Your task to perform on an android device: turn on wifi Image 0: 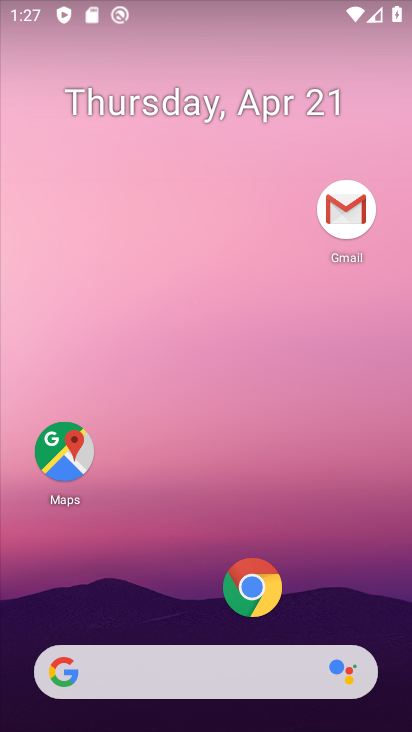
Step 0: drag from (289, 617) to (251, 69)
Your task to perform on an android device: turn on wifi Image 1: 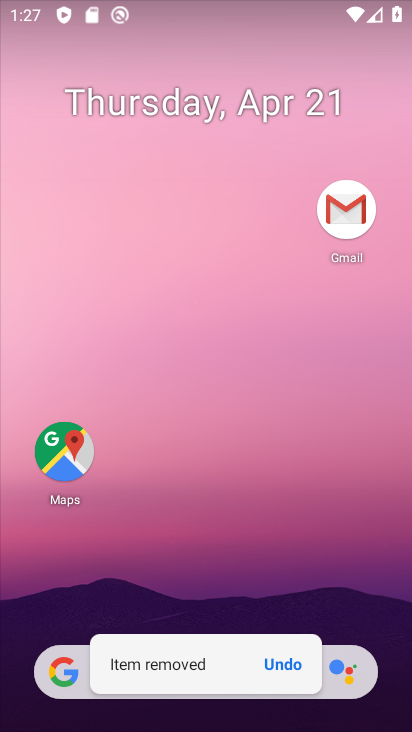
Step 1: click (242, 545)
Your task to perform on an android device: turn on wifi Image 2: 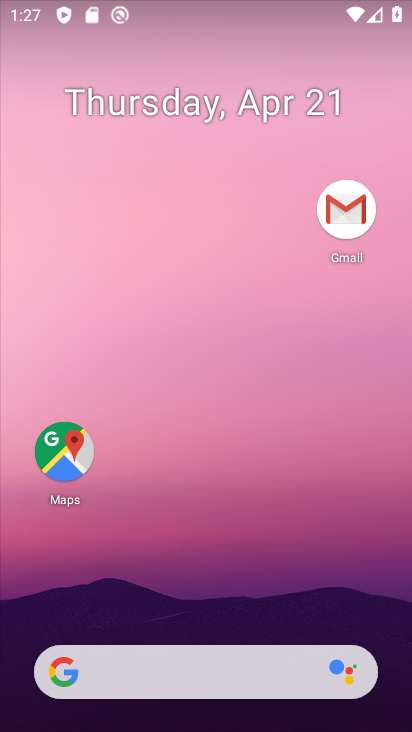
Step 2: drag from (292, 614) to (272, 74)
Your task to perform on an android device: turn on wifi Image 3: 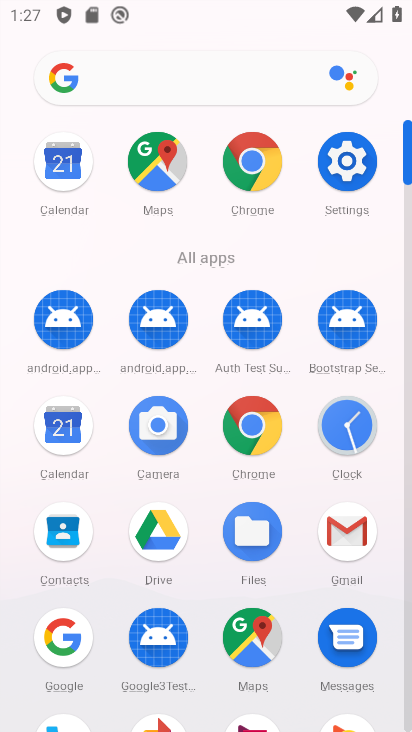
Step 3: click (344, 185)
Your task to perform on an android device: turn on wifi Image 4: 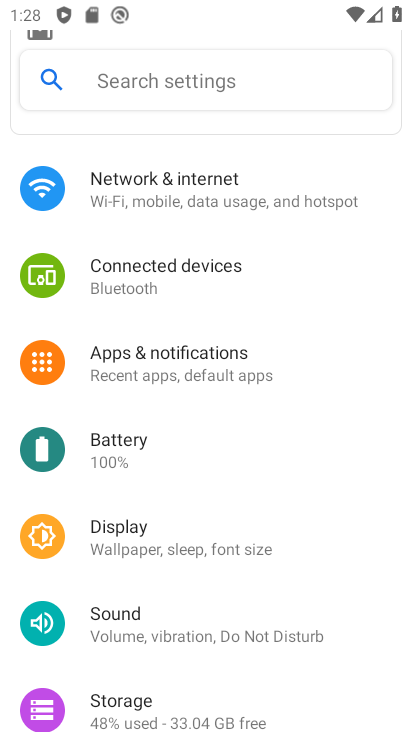
Step 4: click (233, 184)
Your task to perform on an android device: turn on wifi Image 5: 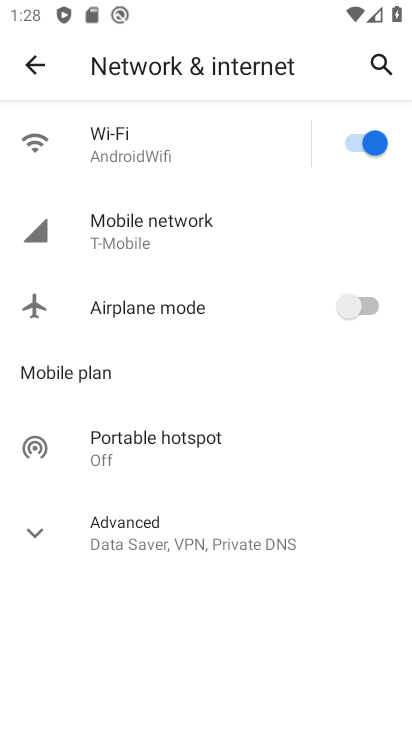
Step 5: task complete